Your task to perform on an android device: Go to Amazon Image 0: 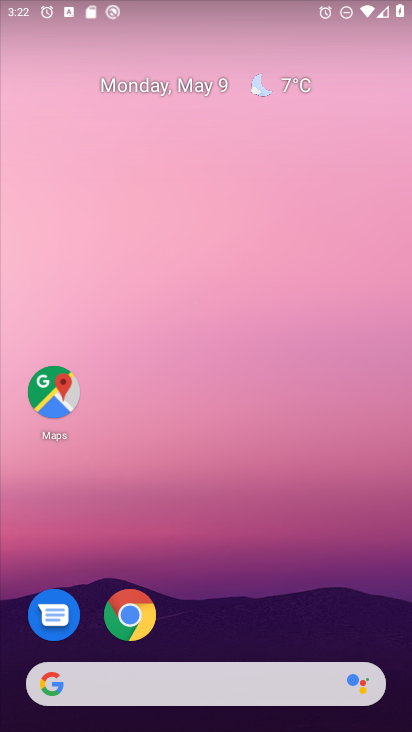
Step 0: click (133, 614)
Your task to perform on an android device: Go to Amazon Image 1: 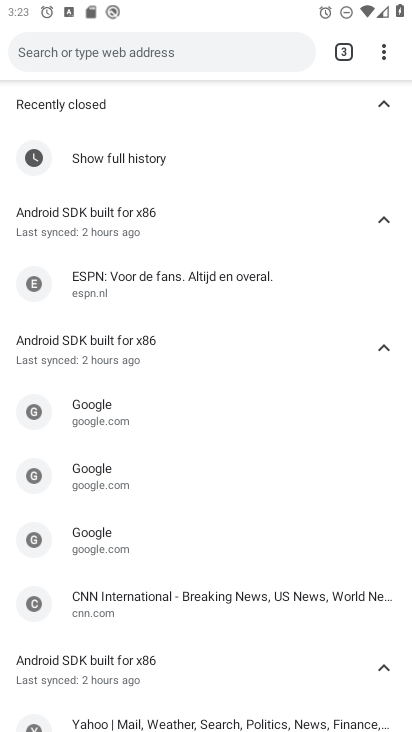
Step 1: click (90, 52)
Your task to perform on an android device: Go to Amazon Image 2: 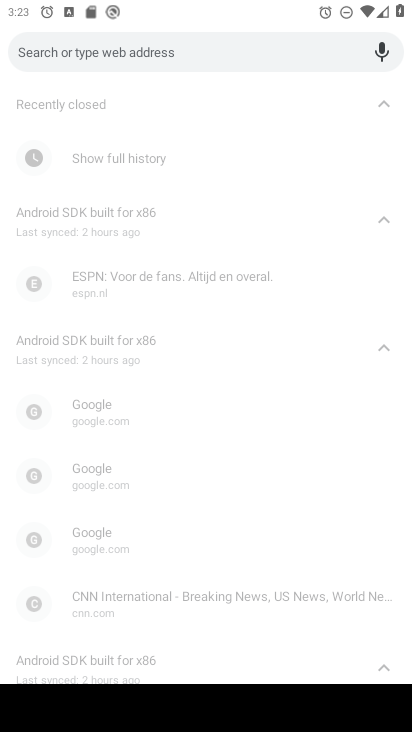
Step 2: type "amazon"
Your task to perform on an android device: Go to Amazon Image 3: 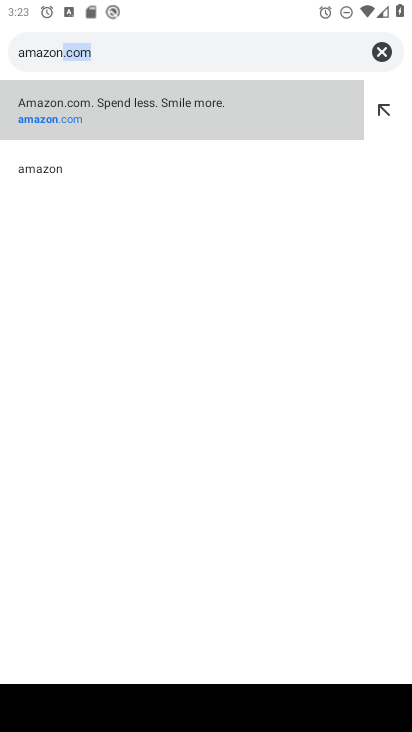
Step 3: click (68, 108)
Your task to perform on an android device: Go to Amazon Image 4: 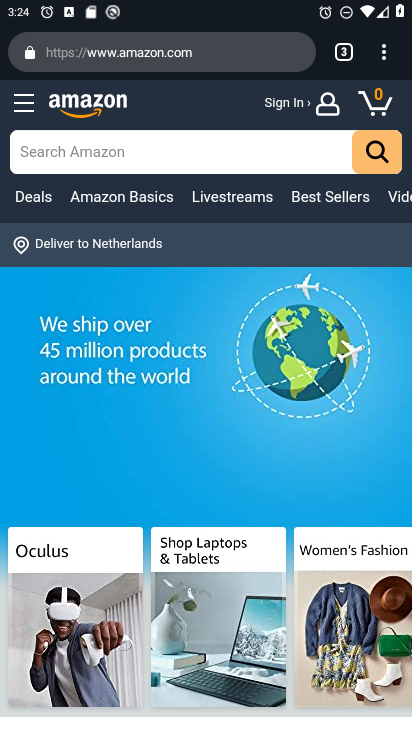
Step 4: task complete